Your task to perform on an android device: Turn on the flashlight Image 0: 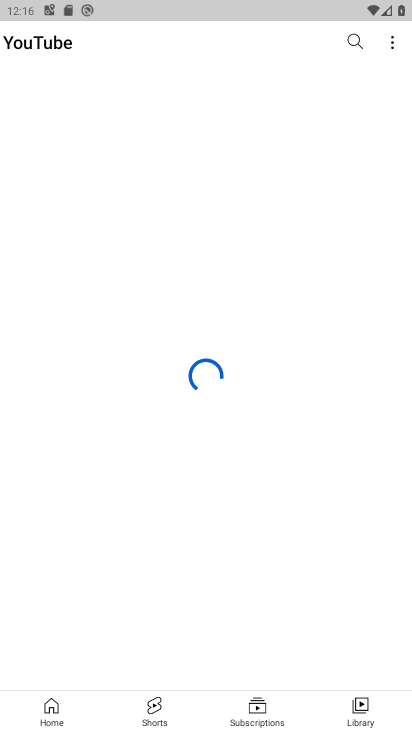
Step 0: press home button
Your task to perform on an android device: Turn on the flashlight Image 1: 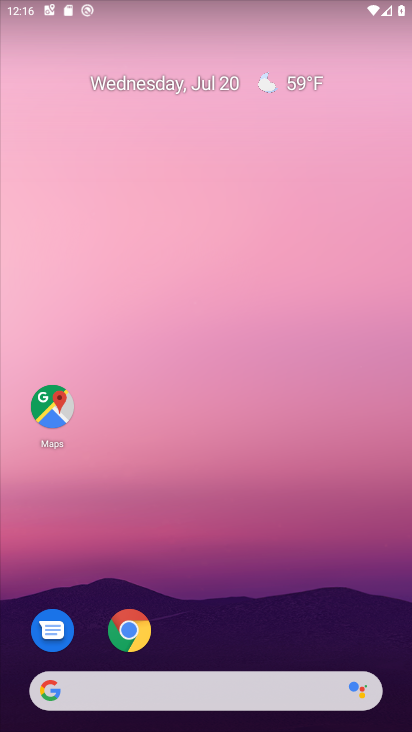
Step 1: drag from (220, 19) to (255, 507)
Your task to perform on an android device: Turn on the flashlight Image 2: 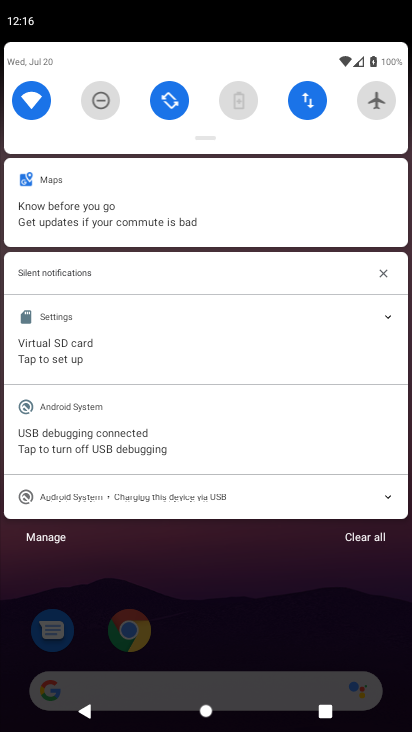
Step 2: drag from (203, 138) to (211, 373)
Your task to perform on an android device: Turn on the flashlight Image 3: 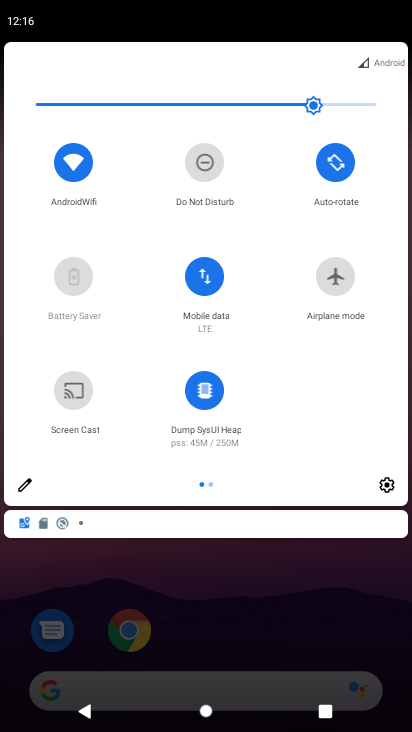
Step 3: click (23, 487)
Your task to perform on an android device: Turn on the flashlight Image 4: 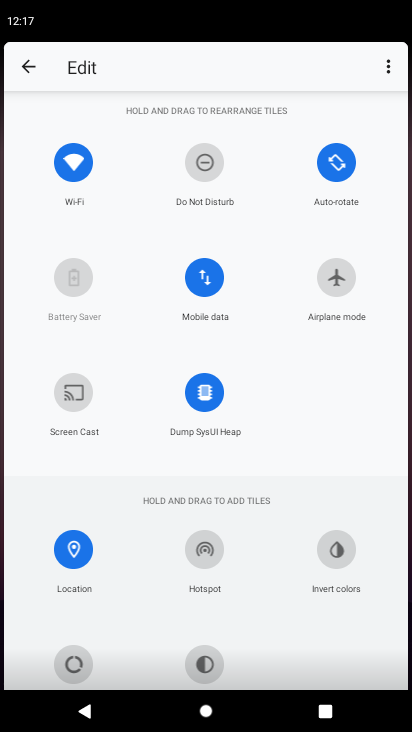
Step 4: task complete